Your task to perform on an android device: Open the map Image 0: 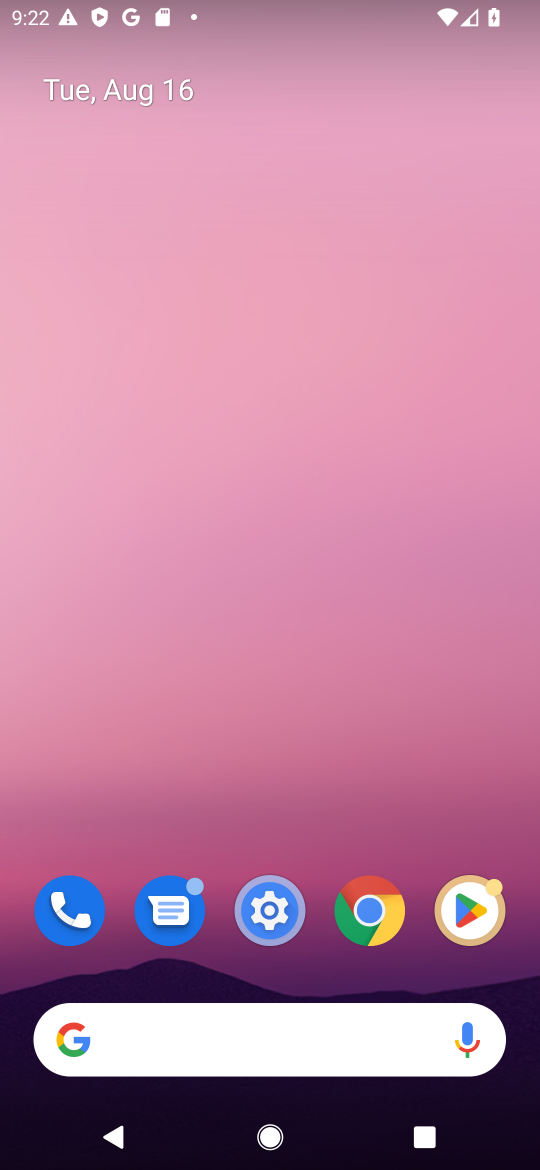
Step 0: drag from (288, 785) to (263, 3)
Your task to perform on an android device: Open the map Image 1: 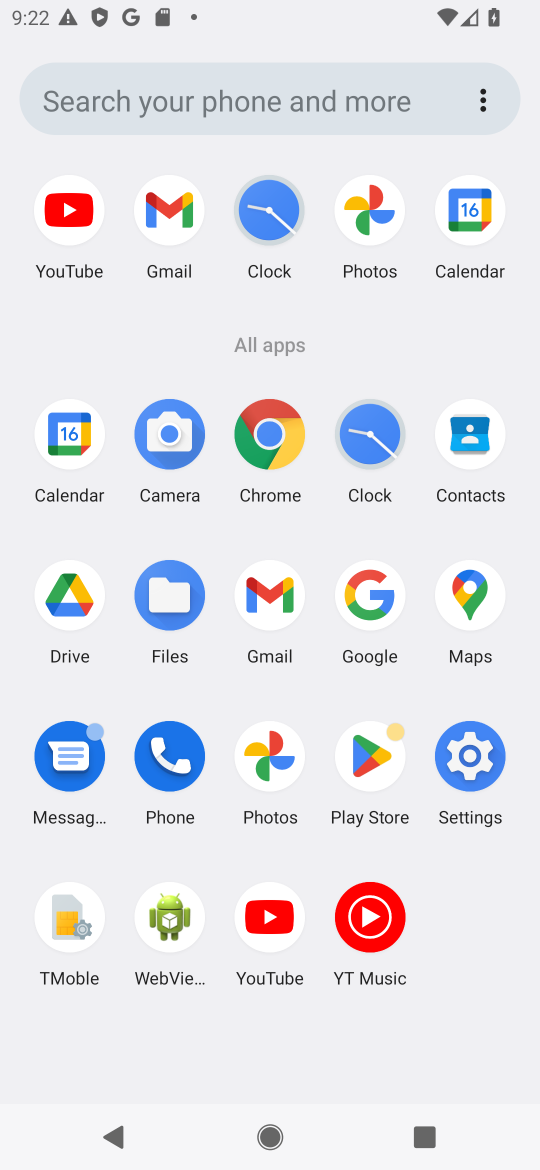
Step 1: click (474, 596)
Your task to perform on an android device: Open the map Image 2: 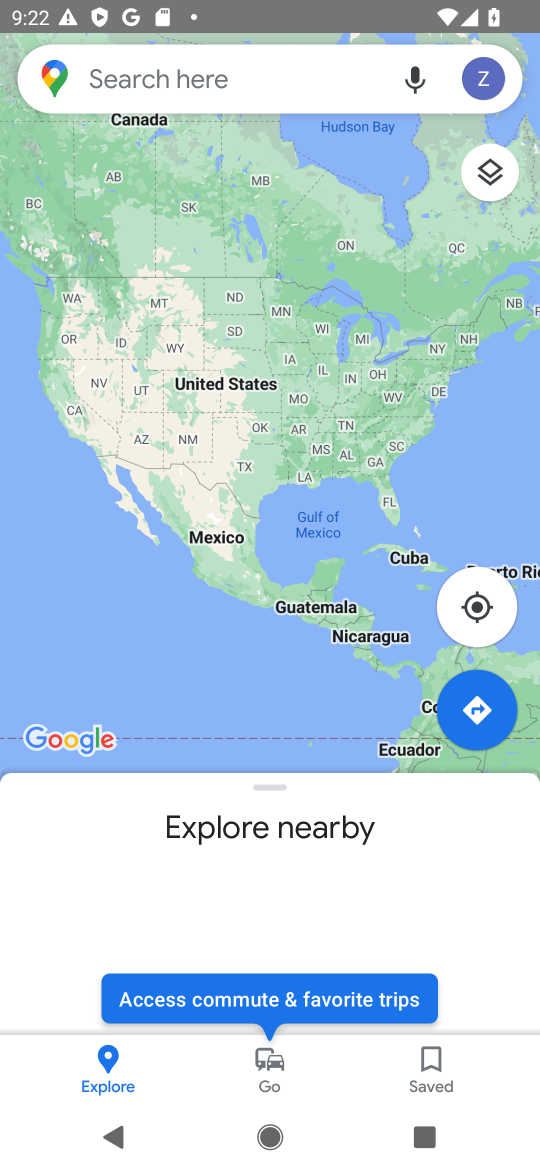
Step 2: task complete